Your task to perform on an android device: Open settings Image 0: 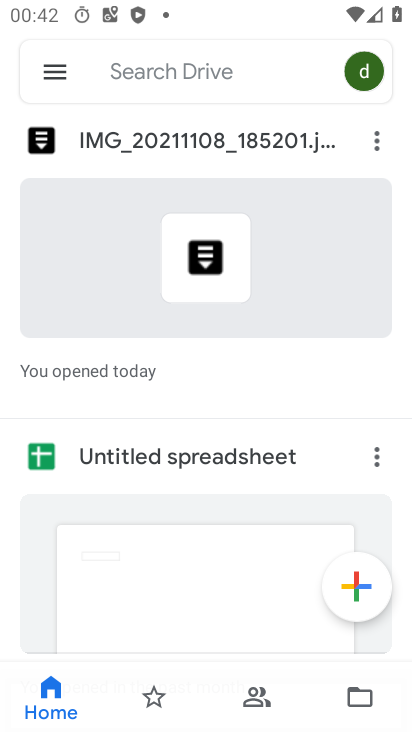
Step 0: press home button
Your task to perform on an android device: Open settings Image 1: 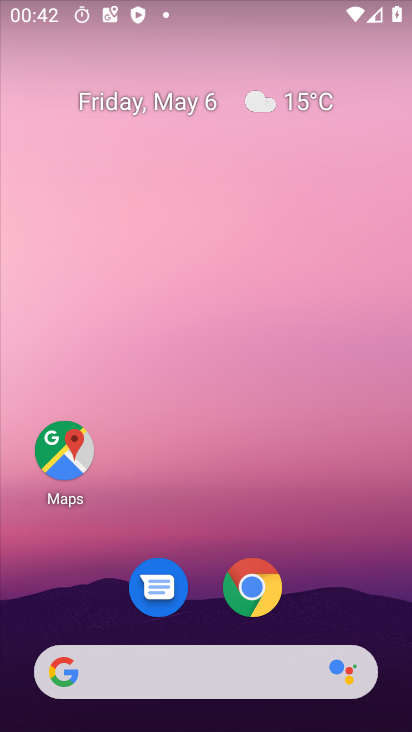
Step 1: drag from (375, 610) to (335, 200)
Your task to perform on an android device: Open settings Image 2: 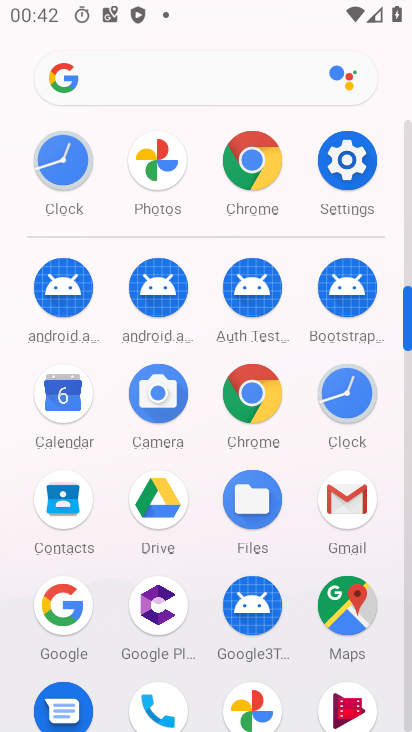
Step 2: click (347, 170)
Your task to perform on an android device: Open settings Image 3: 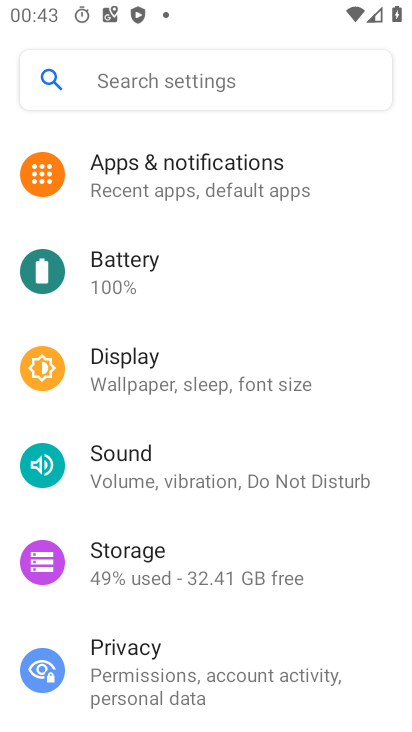
Step 3: task complete